Your task to perform on an android device: all mails in gmail Image 0: 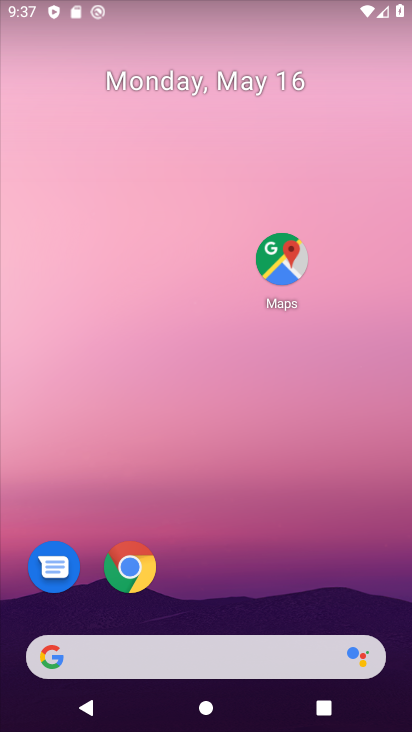
Step 0: drag from (230, 542) to (201, 97)
Your task to perform on an android device: all mails in gmail Image 1: 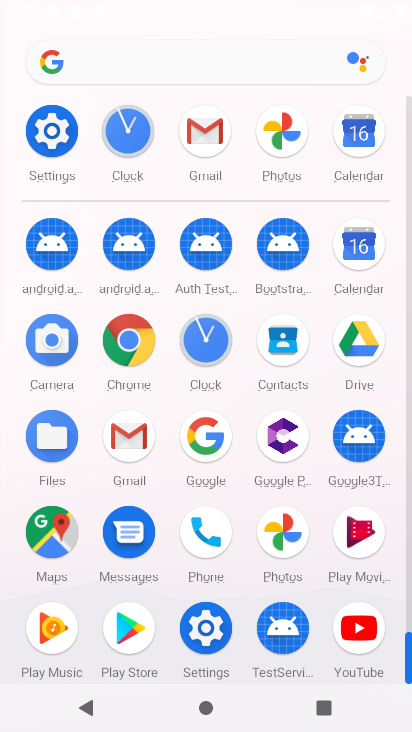
Step 1: click (204, 129)
Your task to perform on an android device: all mails in gmail Image 2: 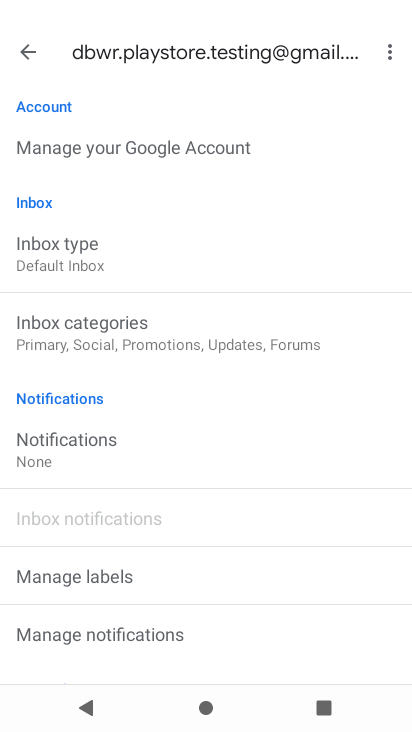
Step 2: drag from (264, 483) to (286, 555)
Your task to perform on an android device: all mails in gmail Image 3: 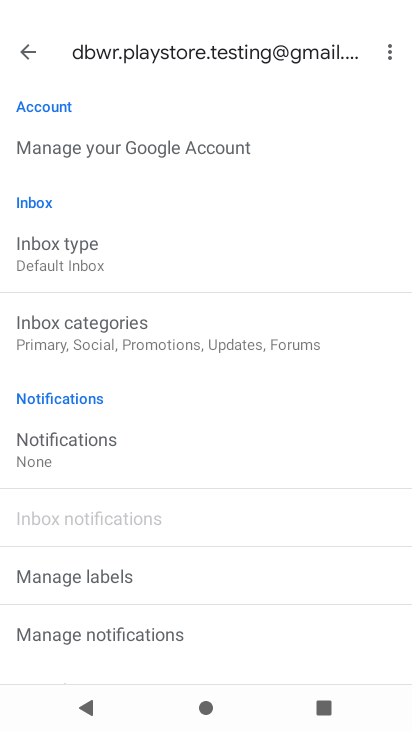
Step 3: press back button
Your task to perform on an android device: all mails in gmail Image 4: 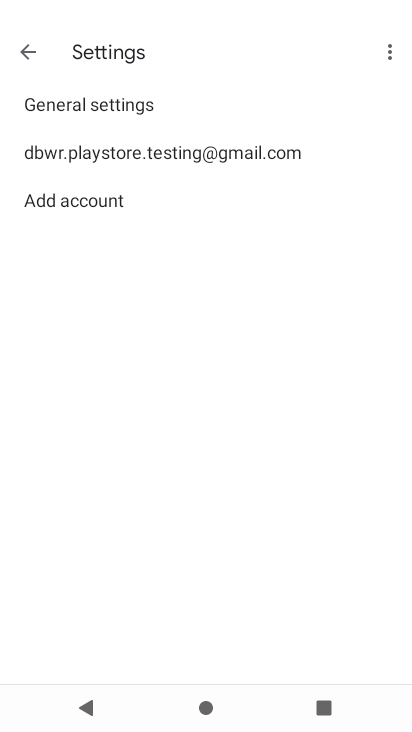
Step 4: press back button
Your task to perform on an android device: all mails in gmail Image 5: 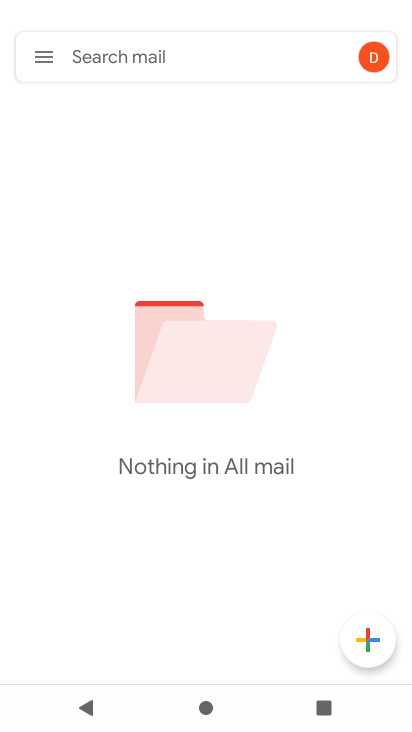
Step 5: click (56, 53)
Your task to perform on an android device: all mails in gmail Image 6: 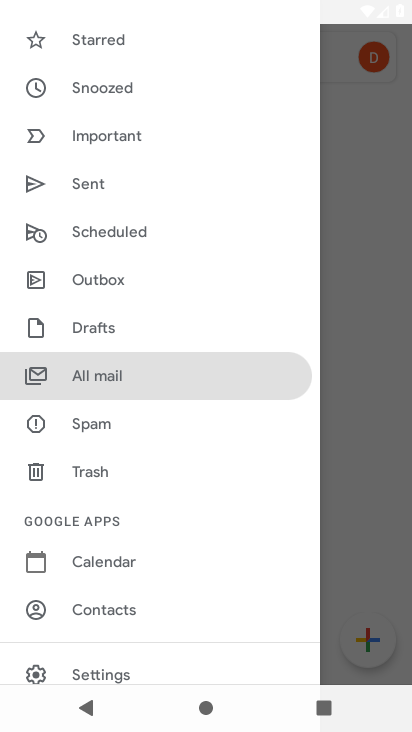
Step 6: click (128, 378)
Your task to perform on an android device: all mails in gmail Image 7: 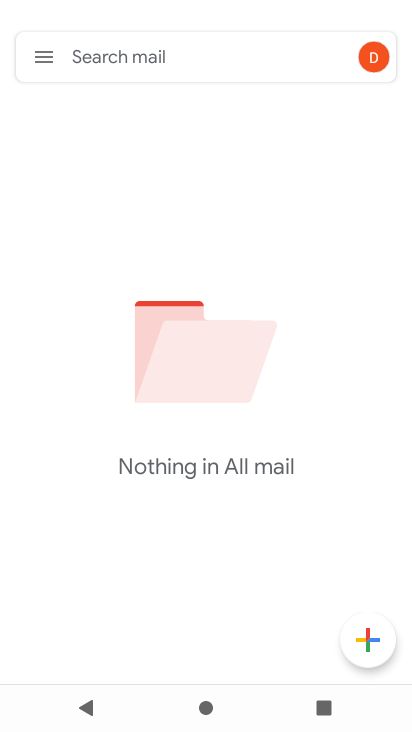
Step 7: task complete